Your task to perform on an android device: What's the weather today? Image 0: 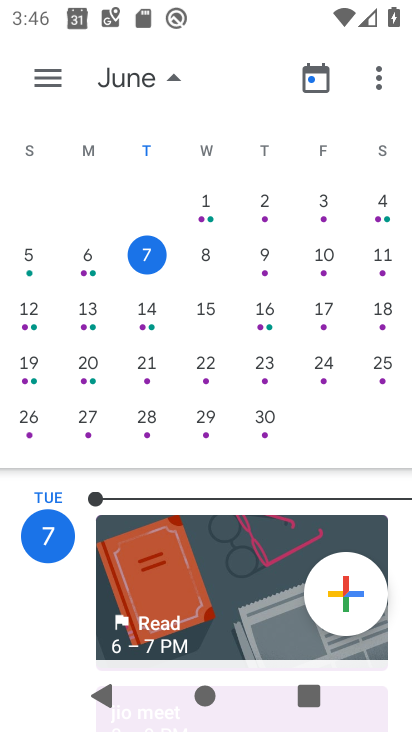
Step 0: press home button
Your task to perform on an android device: What's the weather today? Image 1: 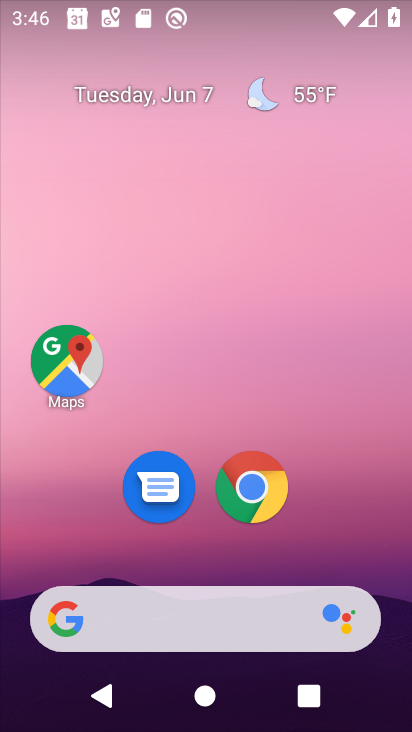
Step 1: drag from (225, 539) to (187, 107)
Your task to perform on an android device: What's the weather today? Image 2: 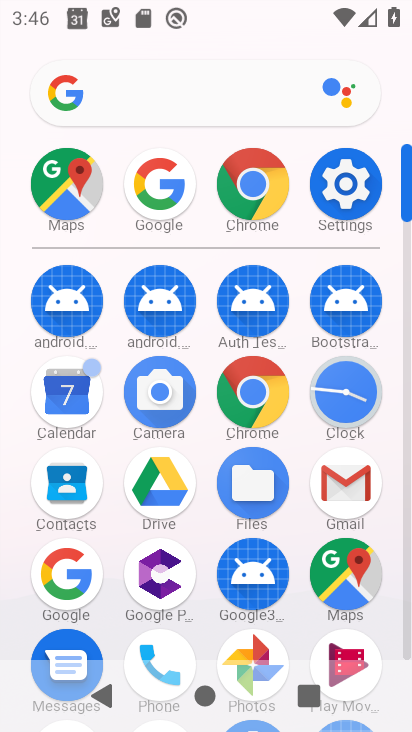
Step 2: click (164, 180)
Your task to perform on an android device: What's the weather today? Image 3: 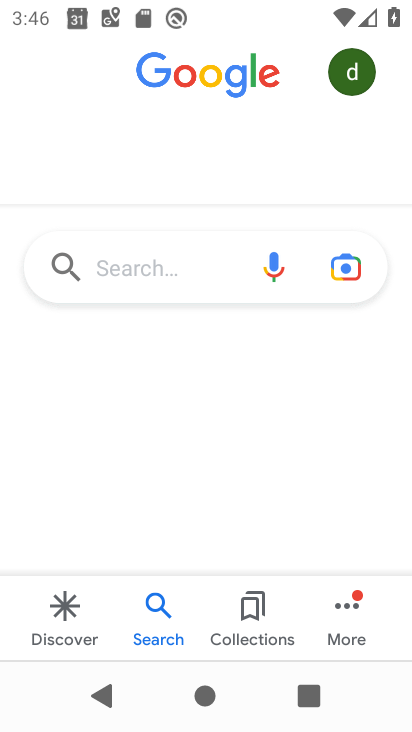
Step 3: click (167, 265)
Your task to perform on an android device: What's the weather today? Image 4: 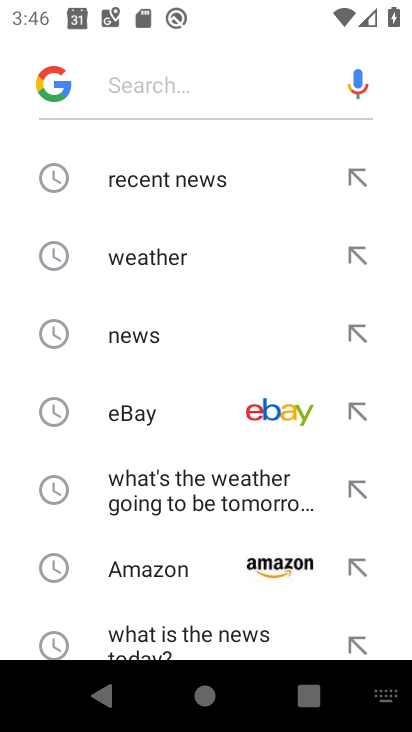
Step 4: click (160, 254)
Your task to perform on an android device: What's the weather today? Image 5: 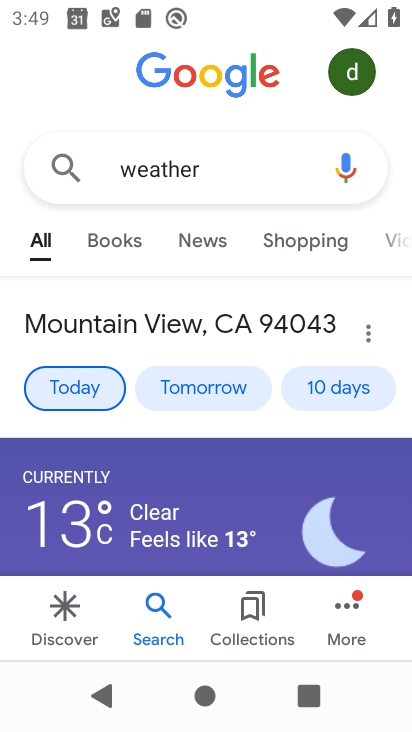
Step 5: task complete